Your task to perform on an android device: How big is a tiger? Image 0: 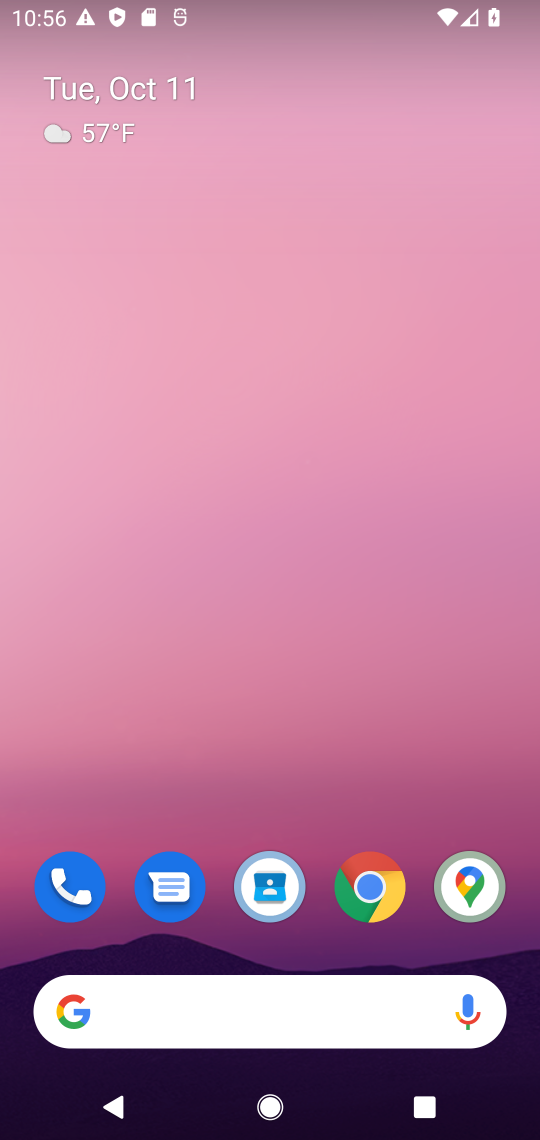
Step 0: click (261, 1007)
Your task to perform on an android device: How big is a tiger? Image 1: 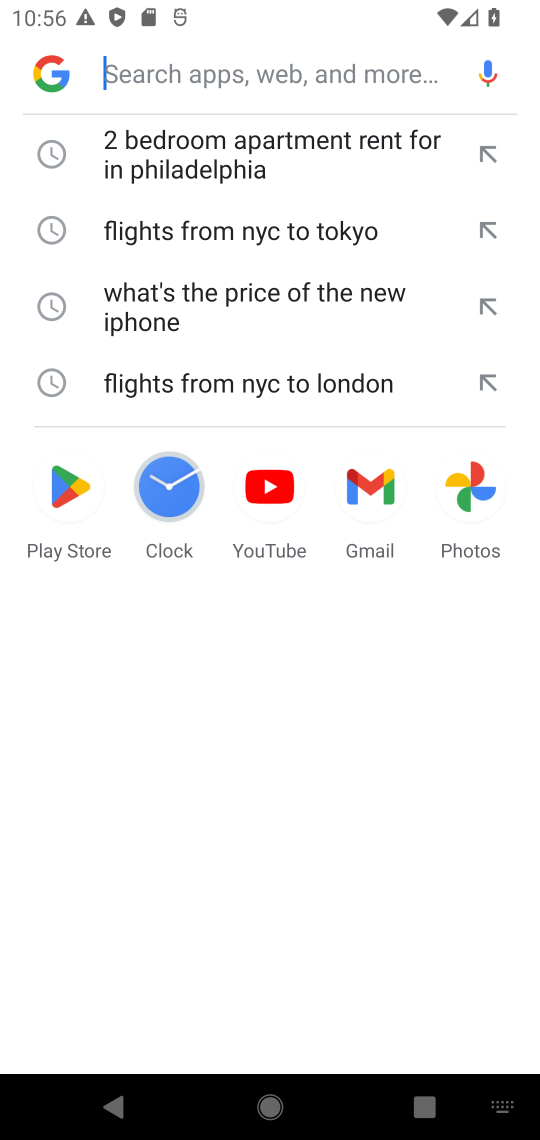
Step 1: press enter
Your task to perform on an android device: How big is a tiger? Image 2: 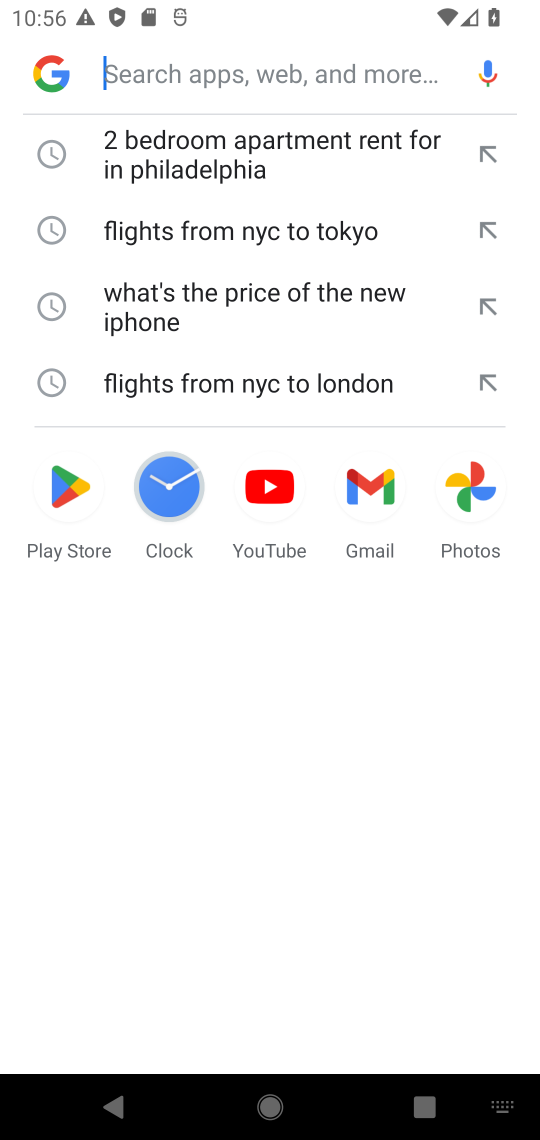
Step 2: type "How big is a tiger"
Your task to perform on an android device: How big is a tiger? Image 3: 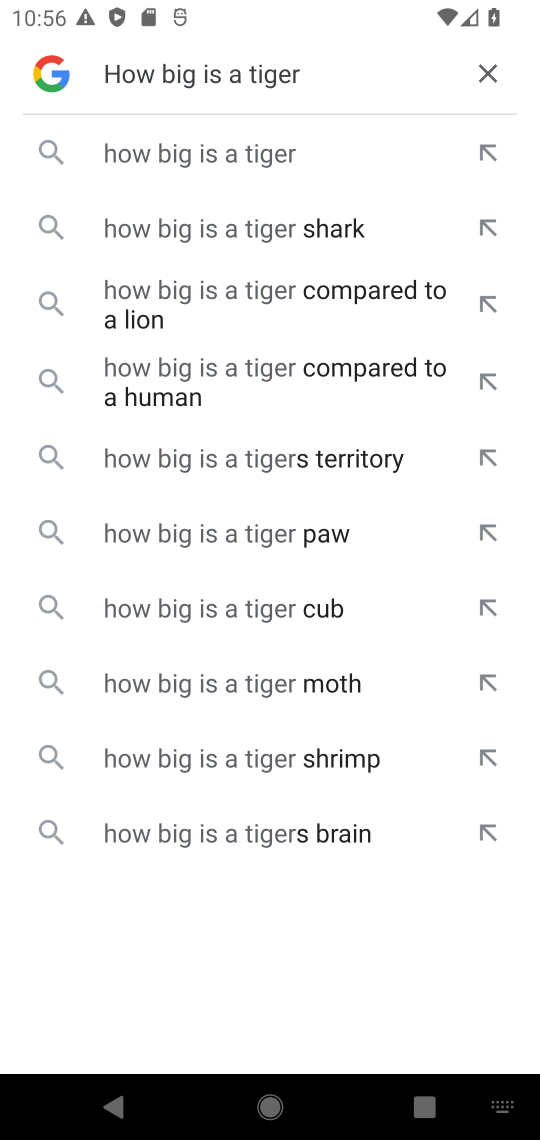
Step 3: press enter
Your task to perform on an android device: How big is a tiger? Image 4: 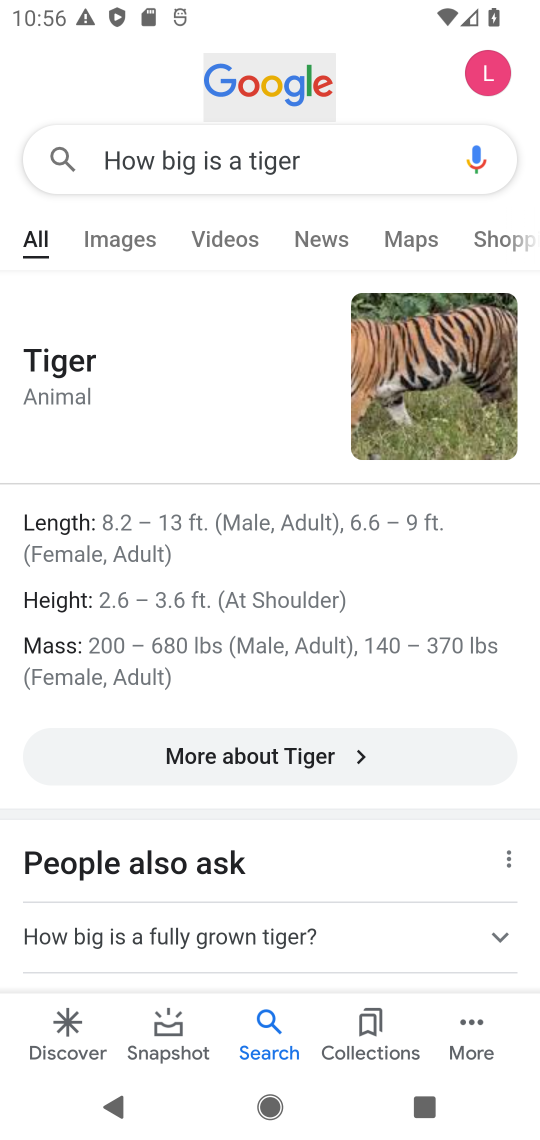
Step 4: task complete